Your task to perform on an android device: turn off wifi Image 0: 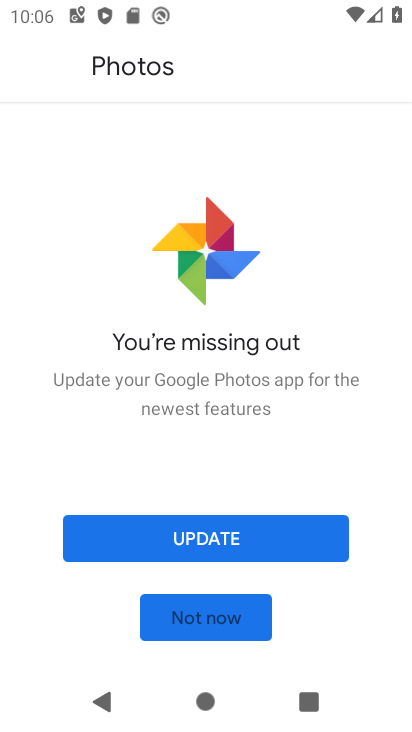
Step 0: press home button
Your task to perform on an android device: turn off wifi Image 1: 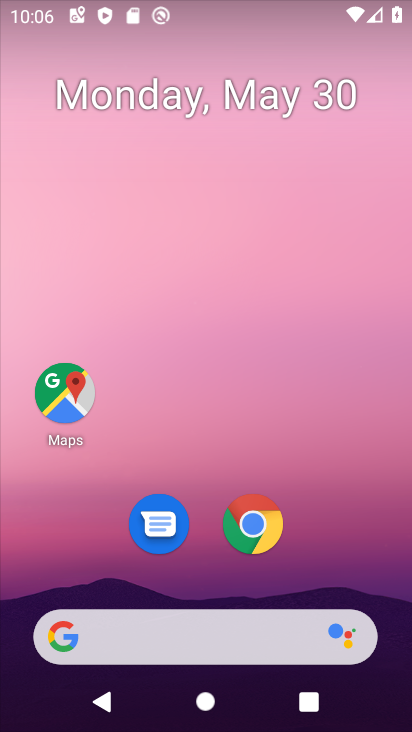
Step 1: drag from (323, 510) to (292, 20)
Your task to perform on an android device: turn off wifi Image 2: 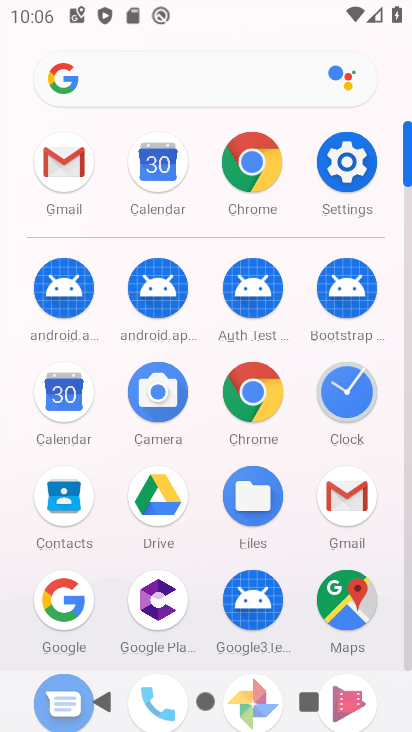
Step 2: click (338, 154)
Your task to perform on an android device: turn off wifi Image 3: 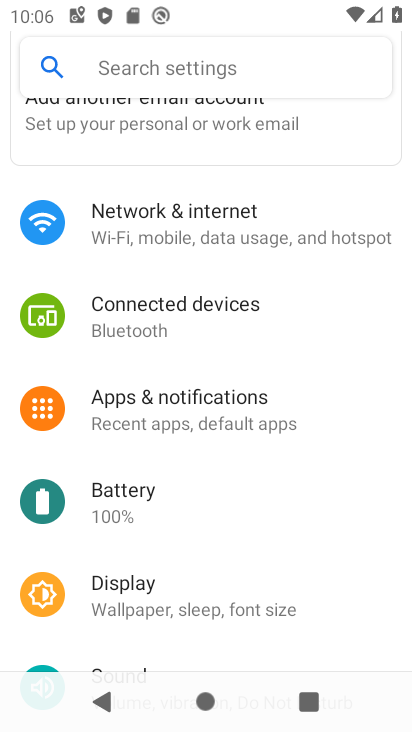
Step 3: click (288, 233)
Your task to perform on an android device: turn off wifi Image 4: 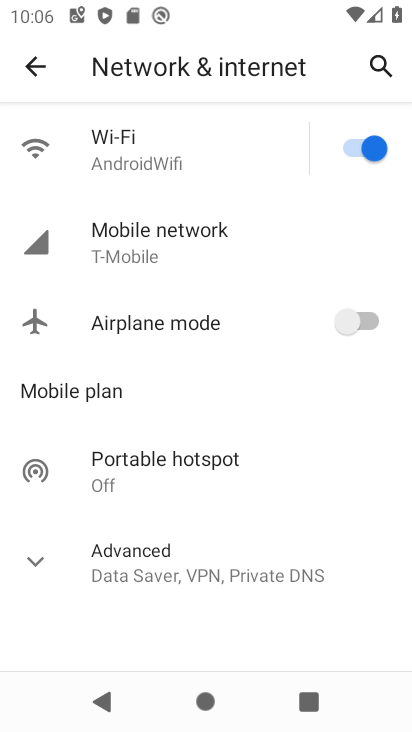
Step 4: click (362, 138)
Your task to perform on an android device: turn off wifi Image 5: 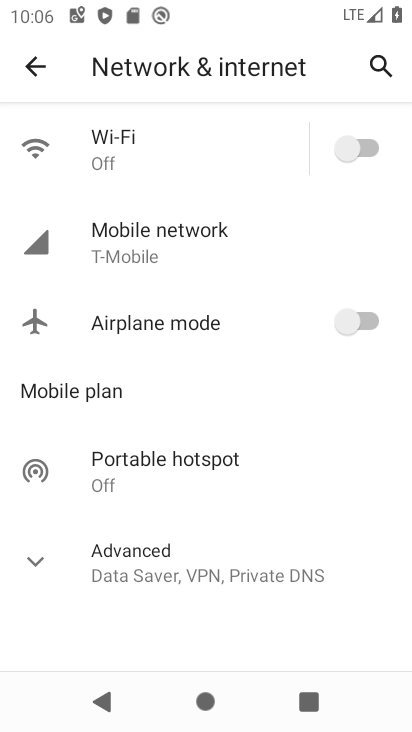
Step 5: task complete